Your task to perform on an android device: stop showing notifications on the lock screen Image 0: 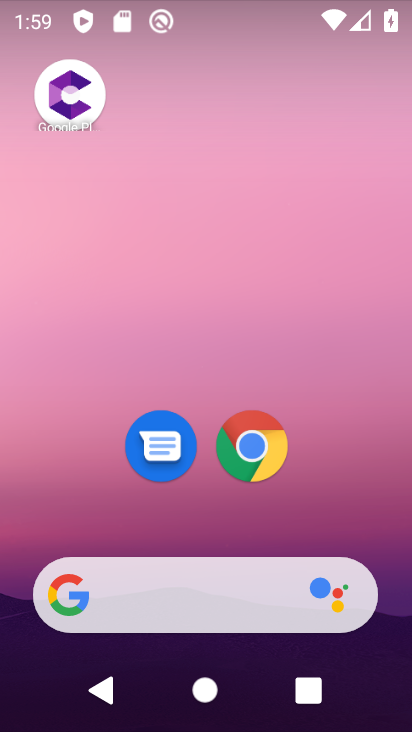
Step 0: drag from (398, 583) to (344, 142)
Your task to perform on an android device: stop showing notifications on the lock screen Image 1: 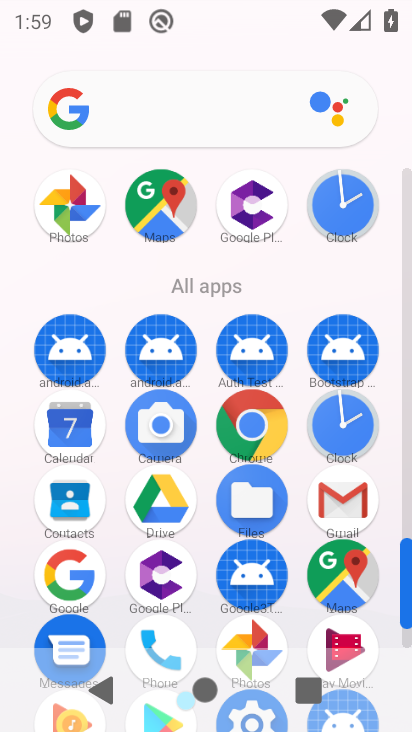
Step 1: click (407, 637)
Your task to perform on an android device: stop showing notifications on the lock screen Image 2: 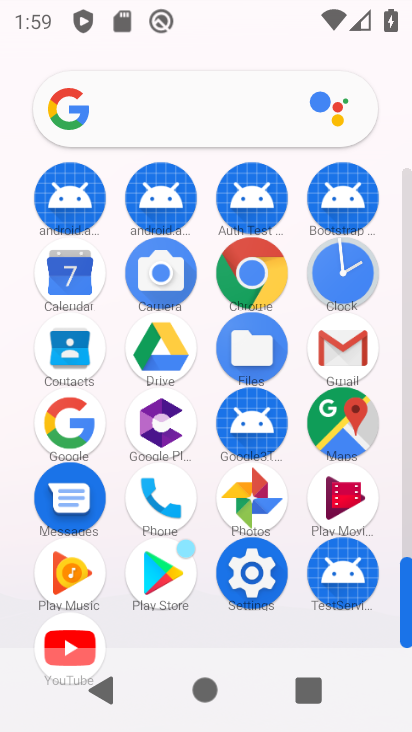
Step 2: click (256, 572)
Your task to perform on an android device: stop showing notifications on the lock screen Image 3: 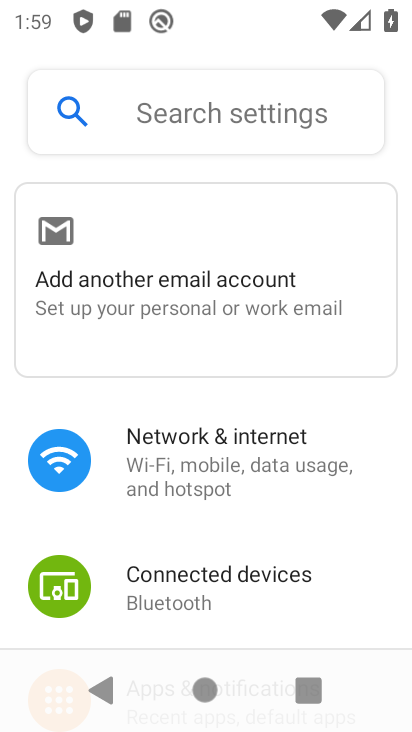
Step 3: drag from (350, 611) to (312, 100)
Your task to perform on an android device: stop showing notifications on the lock screen Image 4: 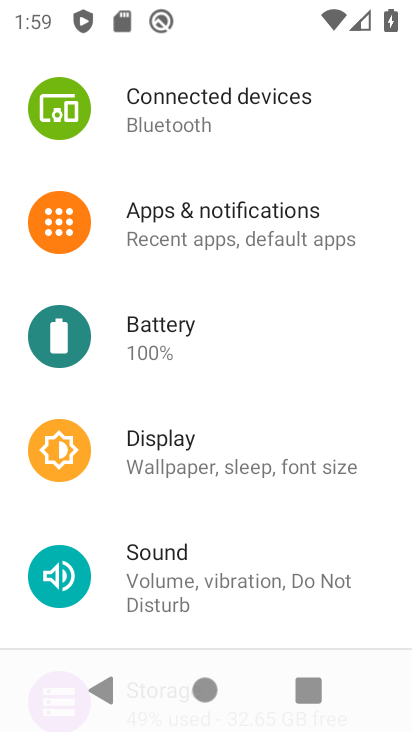
Step 4: click (217, 213)
Your task to perform on an android device: stop showing notifications on the lock screen Image 5: 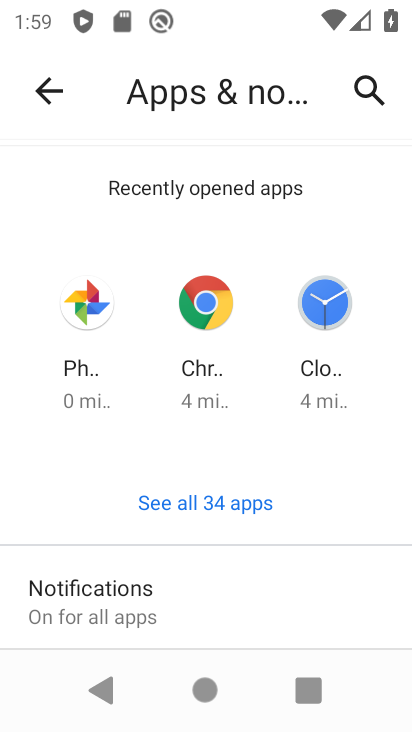
Step 5: drag from (275, 580) to (264, 312)
Your task to perform on an android device: stop showing notifications on the lock screen Image 6: 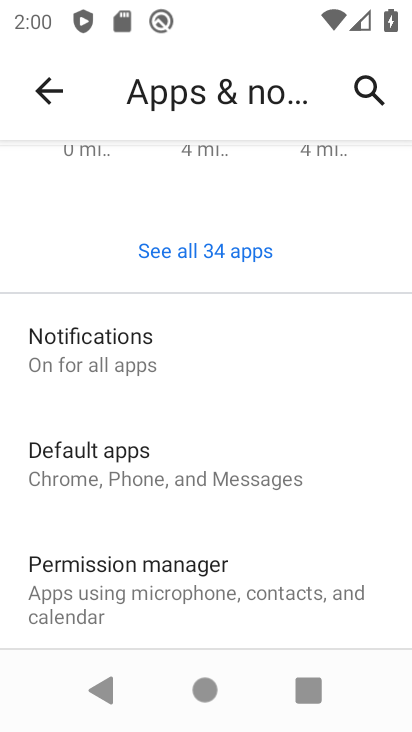
Step 6: click (73, 361)
Your task to perform on an android device: stop showing notifications on the lock screen Image 7: 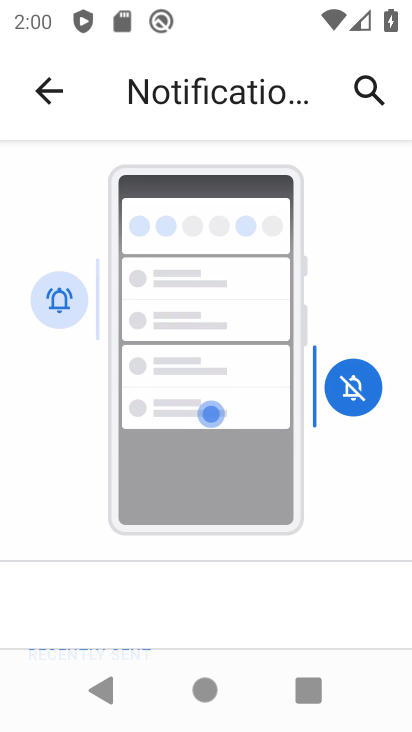
Step 7: drag from (321, 591) to (216, 133)
Your task to perform on an android device: stop showing notifications on the lock screen Image 8: 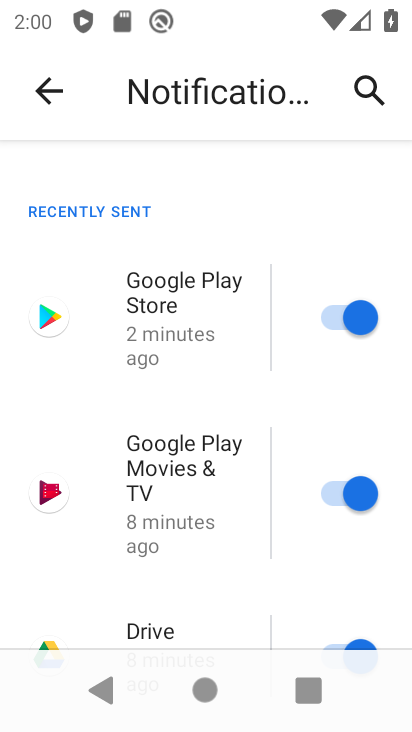
Step 8: drag from (274, 593) to (216, 100)
Your task to perform on an android device: stop showing notifications on the lock screen Image 9: 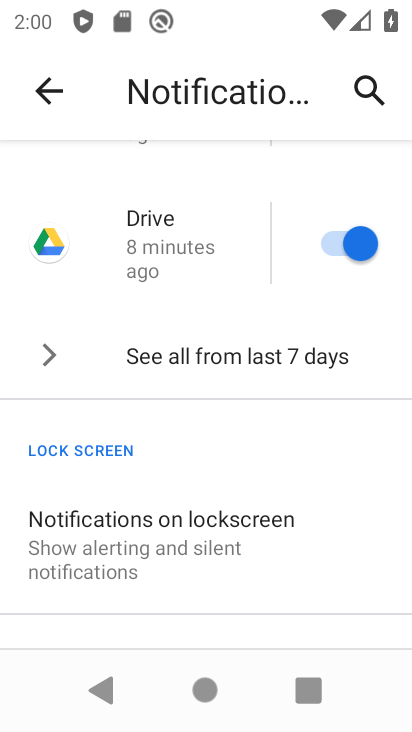
Step 9: click (120, 521)
Your task to perform on an android device: stop showing notifications on the lock screen Image 10: 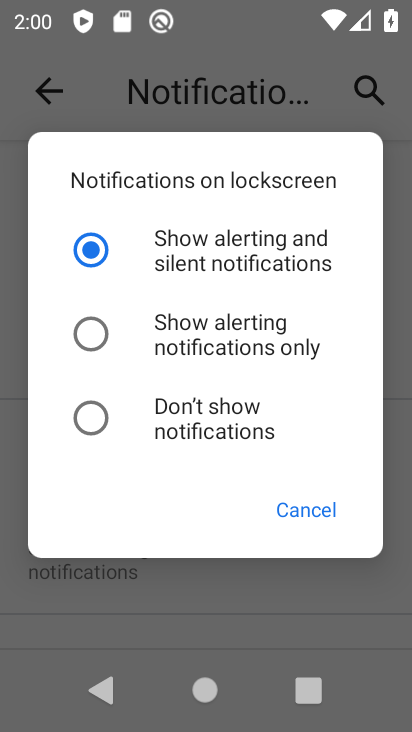
Step 10: click (100, 413)
Your task to perform on an android device: stop showing notifications on the lock screen Image 11: 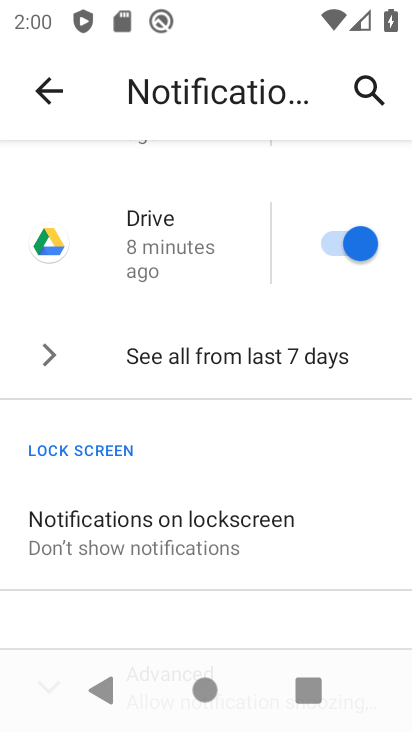
Step 11: task complete